Your task to perform on an android device: empty trash in google photos Image 0: 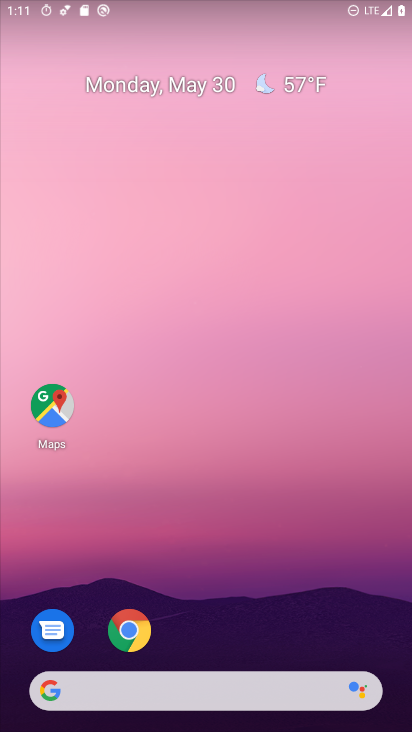
Step 0: press home button
Your task to perform on an android device: empty trash in google photos Image 1: 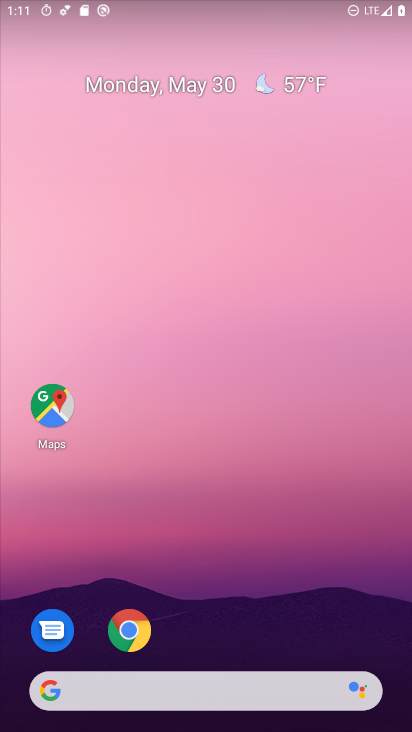
Step 1: drag from (224, 714) to (178, 66)
Your task to perform on an android device: empty trash in google photos Image 2: 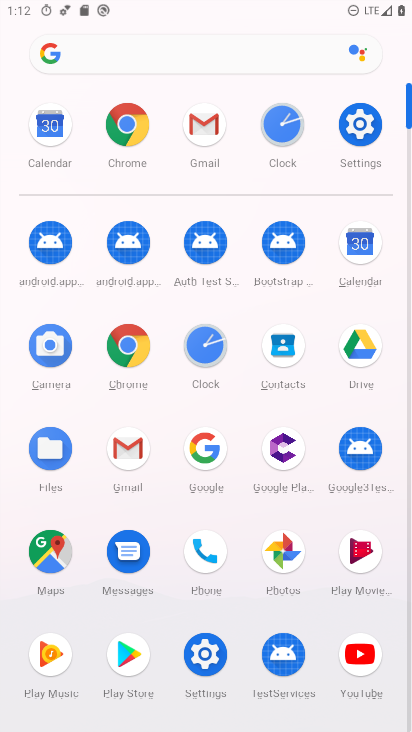
Step 2: click (203, 123)
Your task to perform on an android device: empty trash in google photos Image 3: 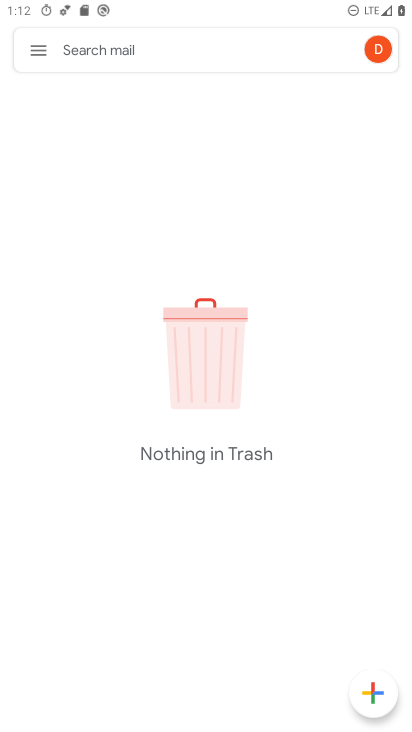
Step 3: click (42, 49)
Your task to perform on an android device: empty trash in google photos Image 4: 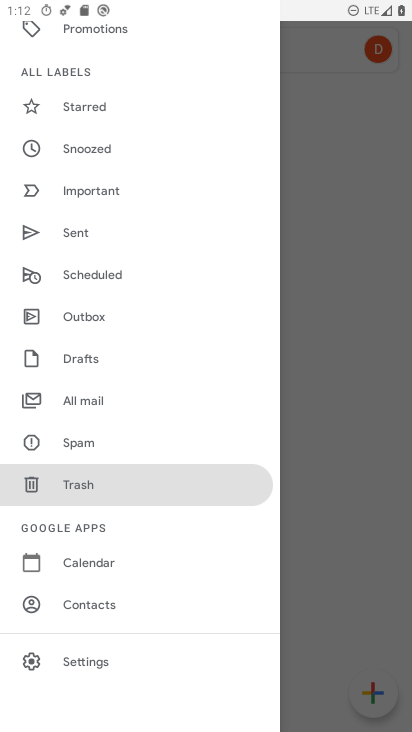
Step 4: click (81, 485)
Your task to perform on an android device: empty trash in google photos Image 5: 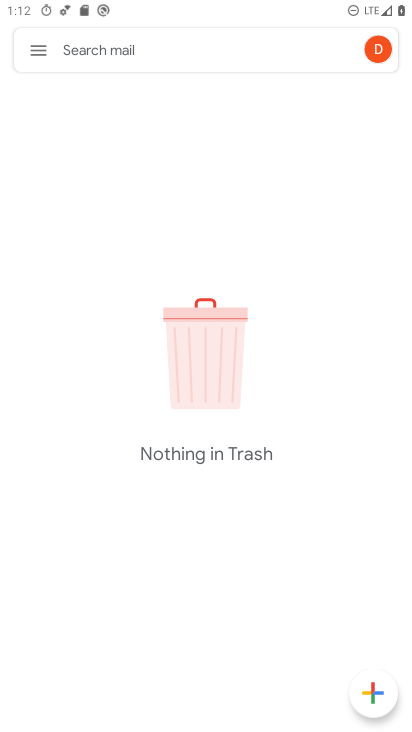
Step 5: task complete